Your task to perform on an android device: Search for Mexican restaurants on Maps Image 0: 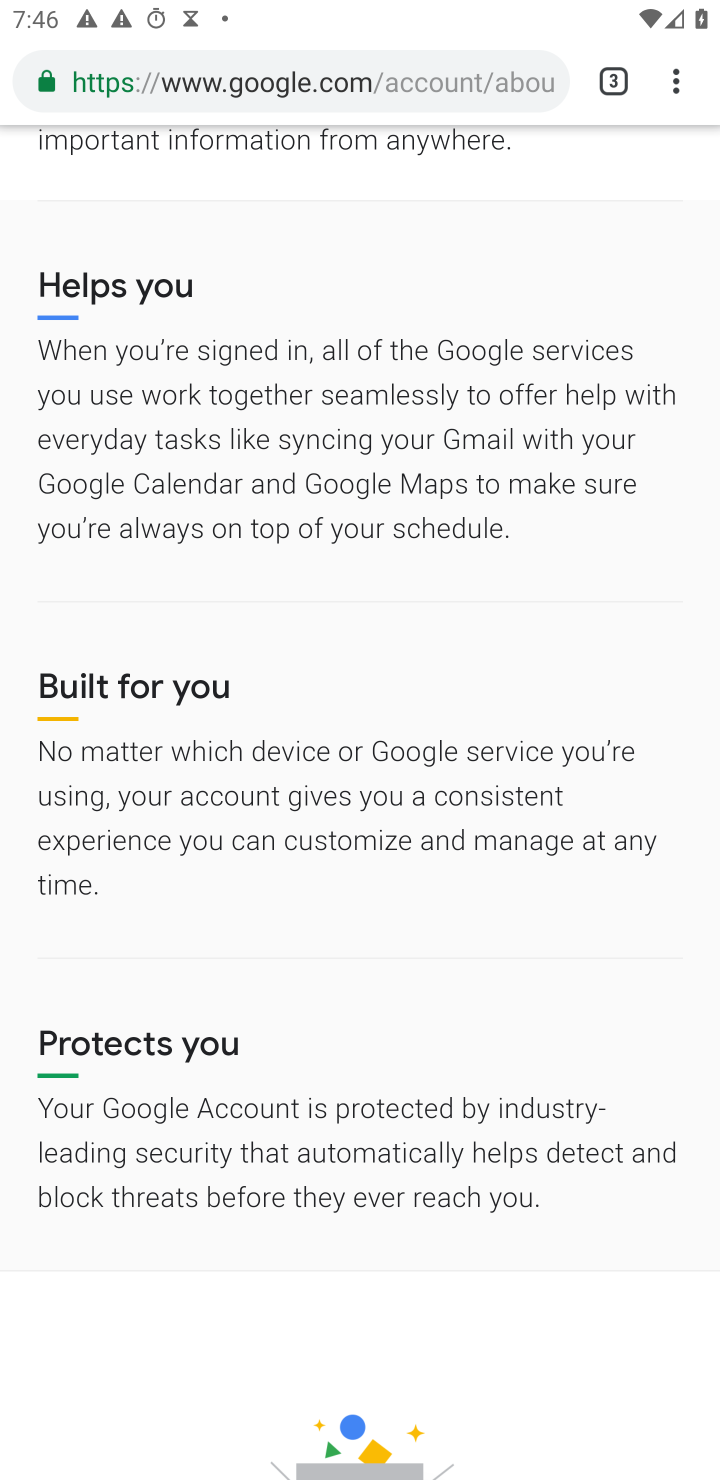
Step 0: press home button
Your task to perform on an android device: Search for Mexican restaurants on Maps Image 1: 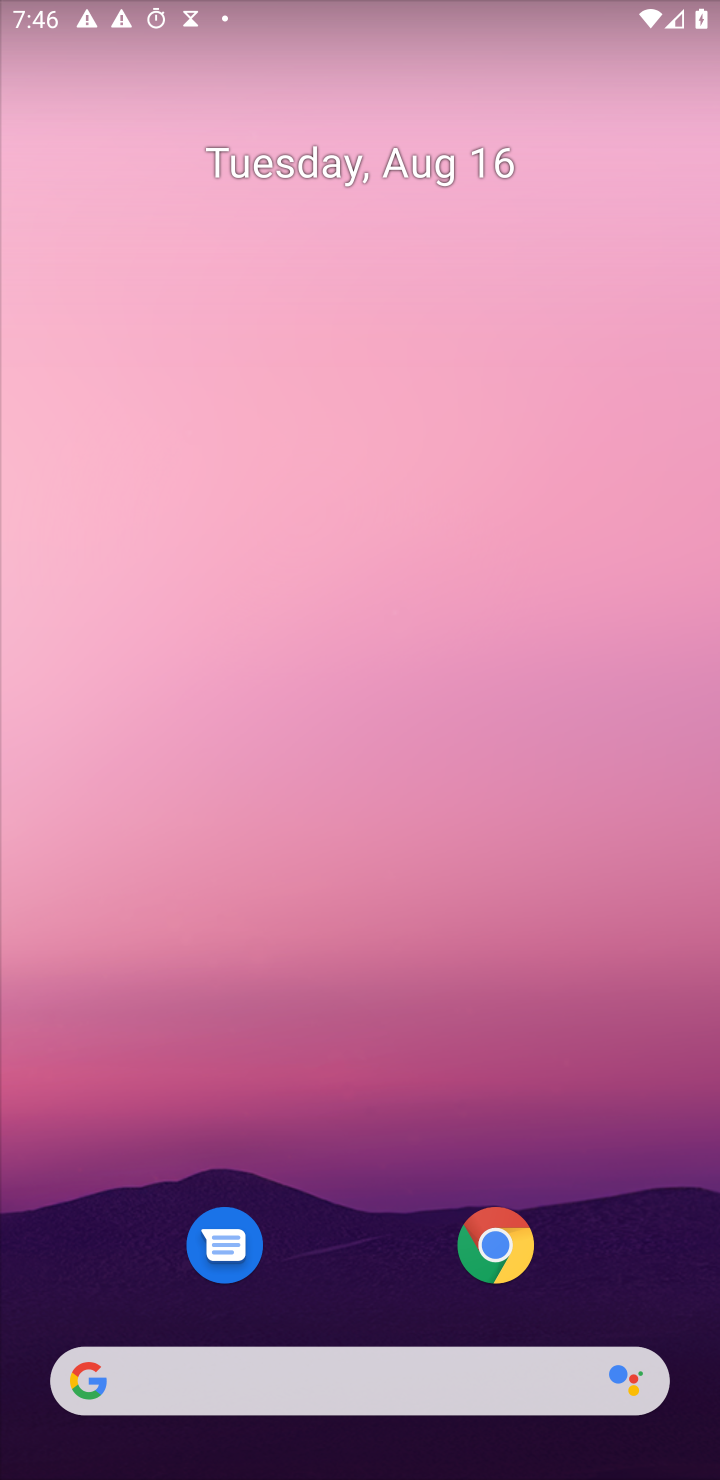
Step 1: drag from (381, 1244) to (397, 253)
Your task to perform on an android device: Search for Mexican restaurants on Maps Image 2: 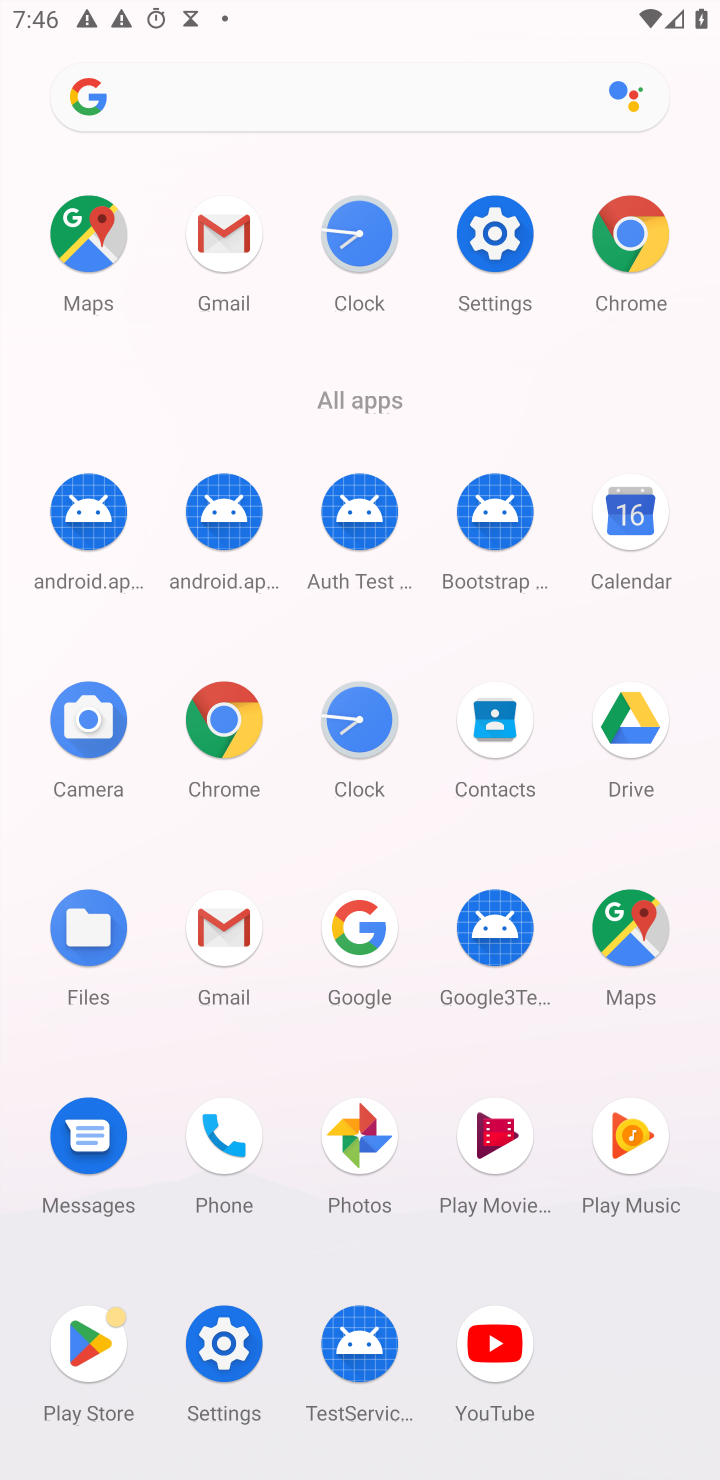
Step 2: click (634, 940)
Your task to perform on an android device: Search for Mexican restaurants on Maps Image 3: 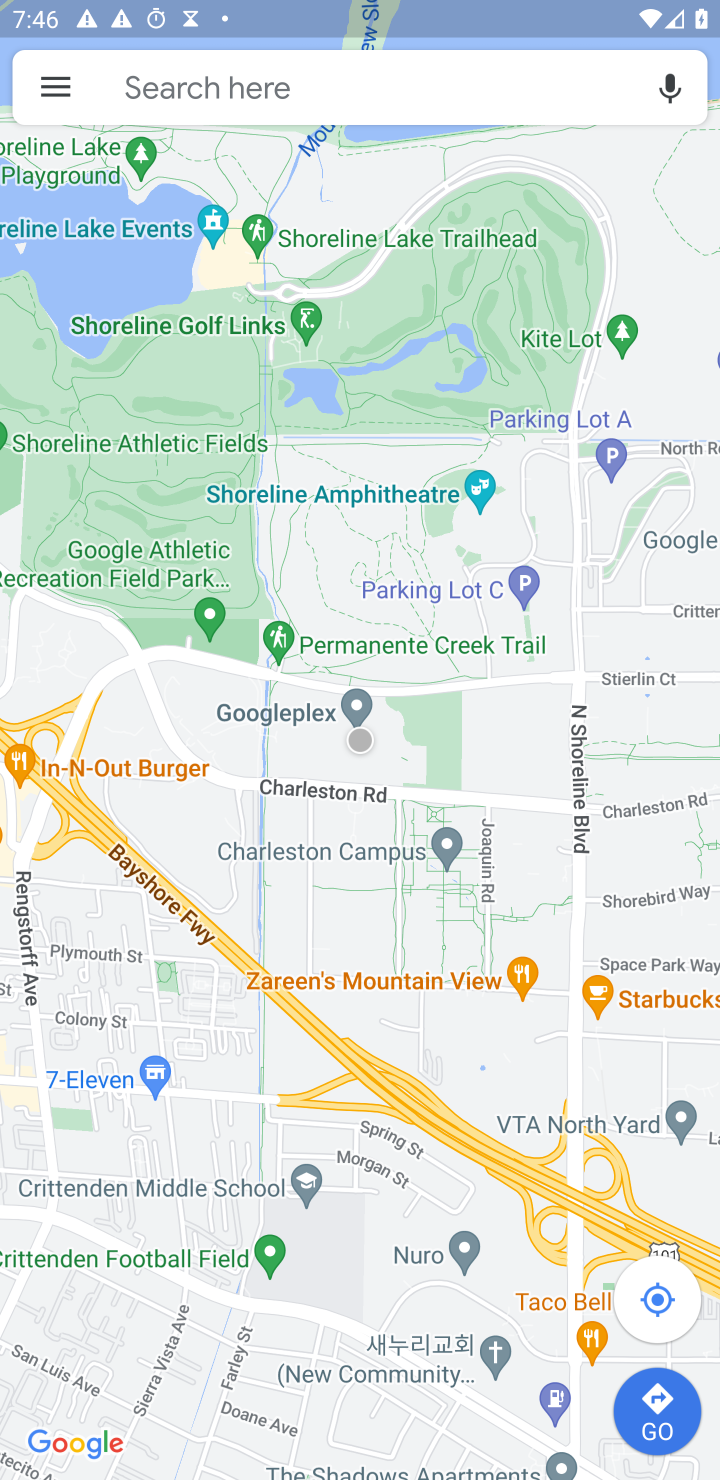
Step 3: click (300, 87)
Your task to perform on an android device: Search for Mexican restaurants on Maps Image 4: 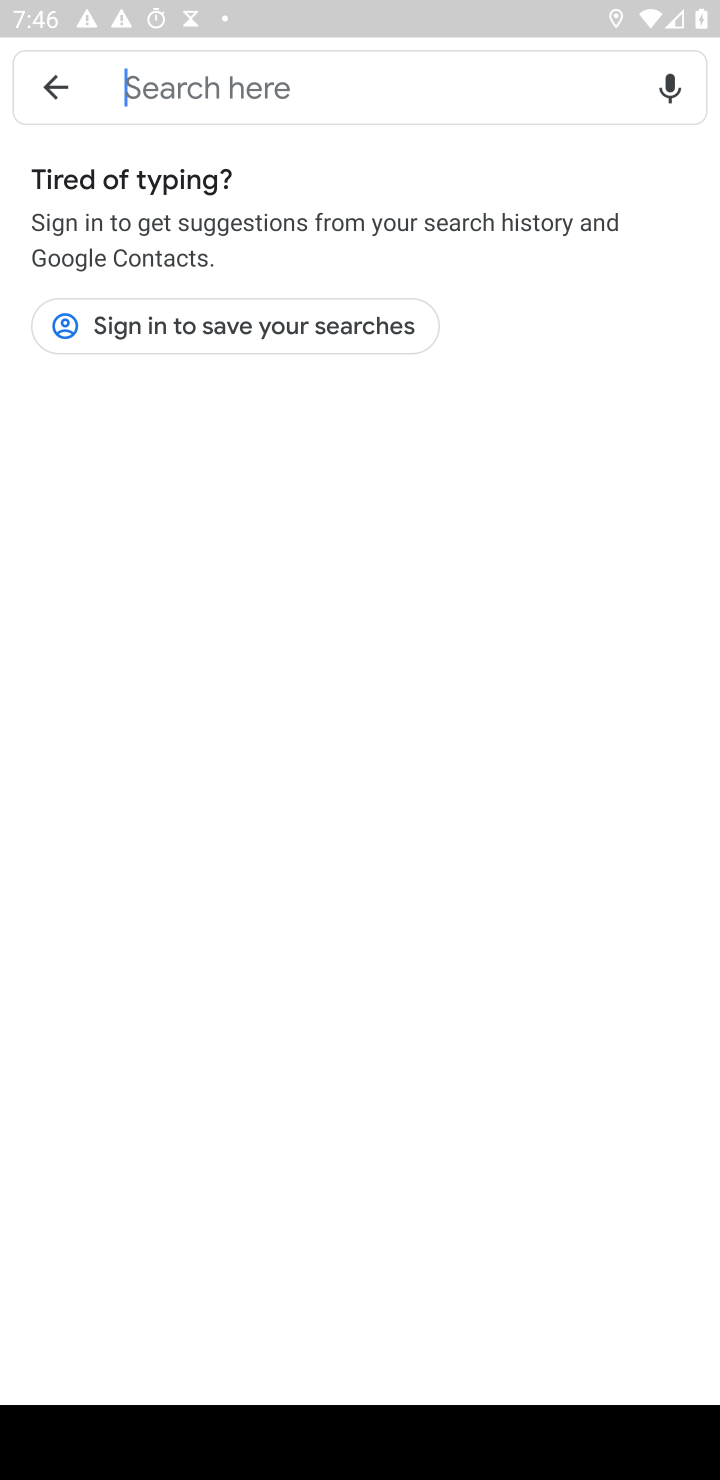
Step 4: type "Mexican restaurants"
Your task to perform on an android device: Search for Mexican restaurants on Maps Image 5: 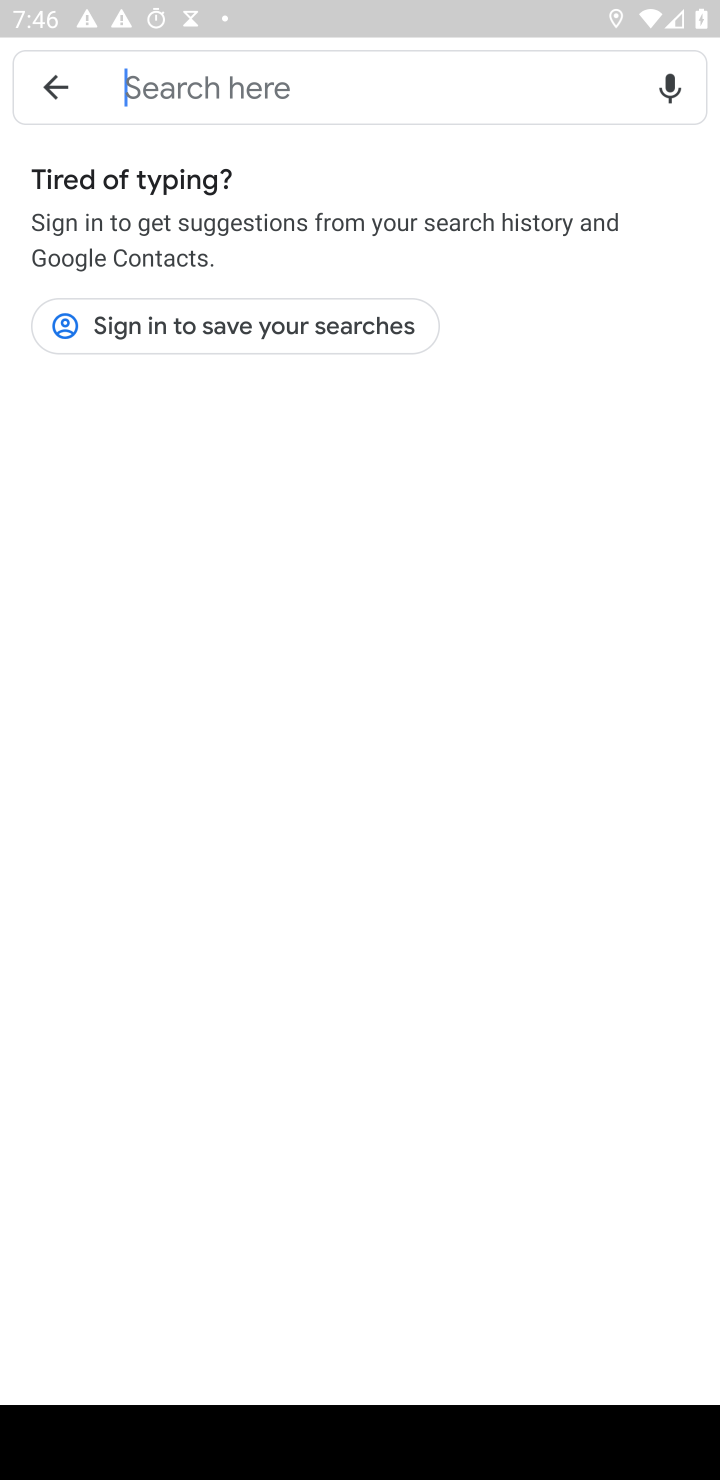
Step 5: click (179, 84)
Your task to perform on an android device: Search for Mexican restaurants on Maps Image 6: 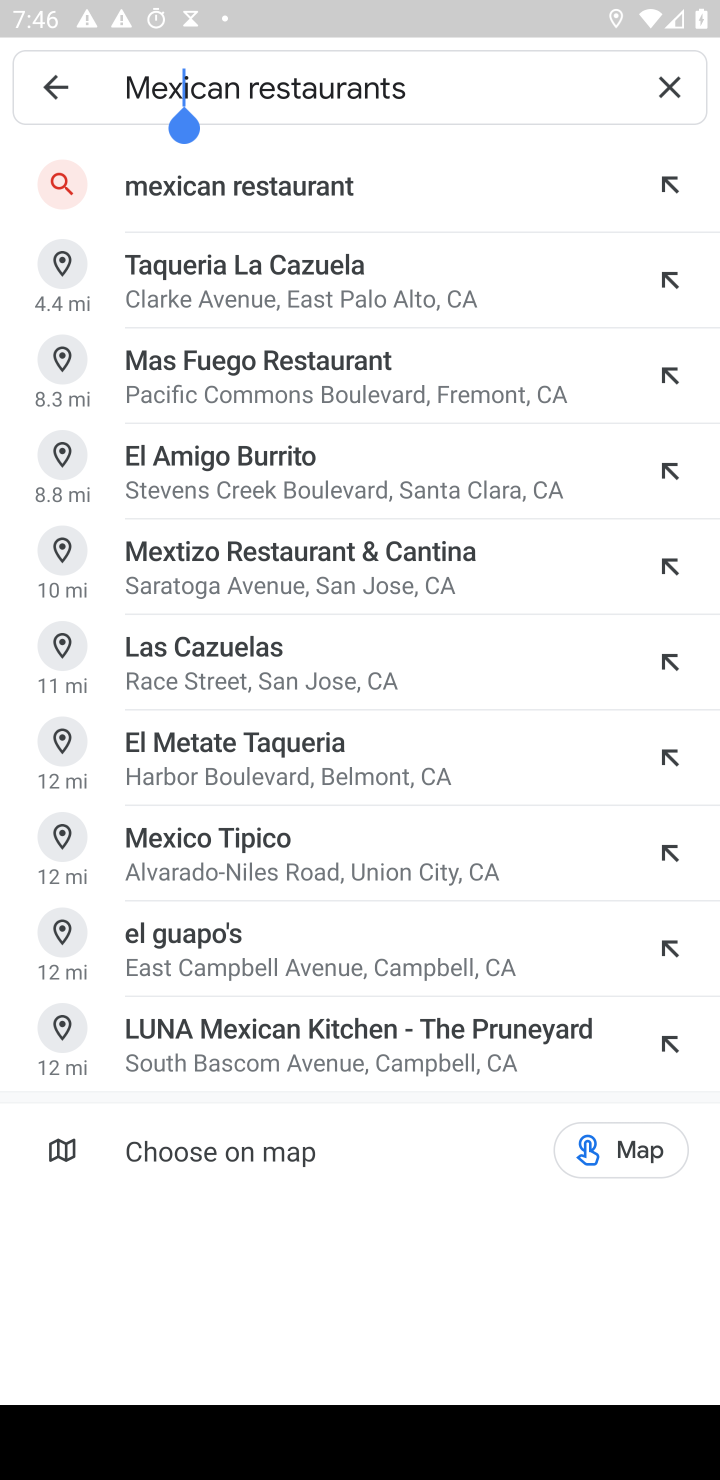
Step 6: click (273, 185)
Your task to perform on an android device: Search for Mexican restaurants on Maps Image 7: 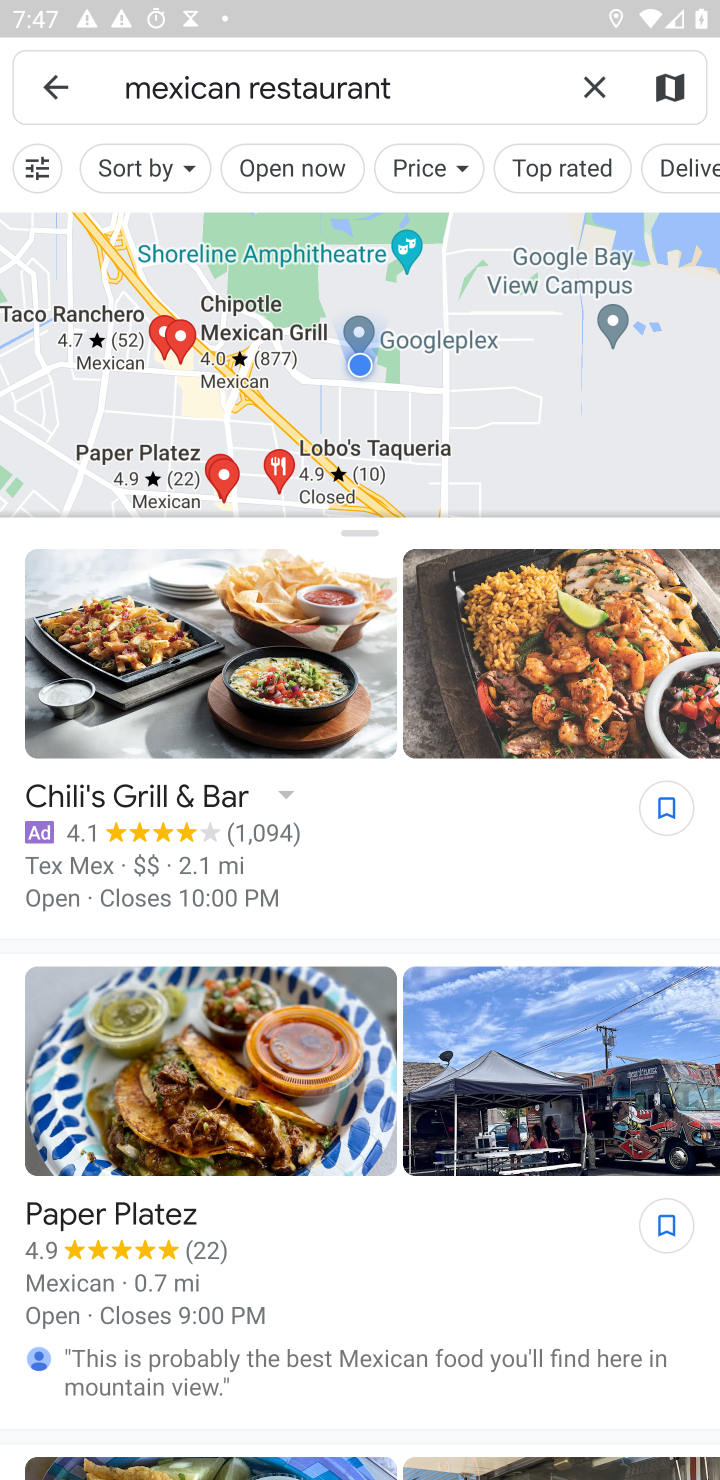
Step 7: task complete